Your task to perform on an android device: uninstall "Microsoft Excel" Image 0: 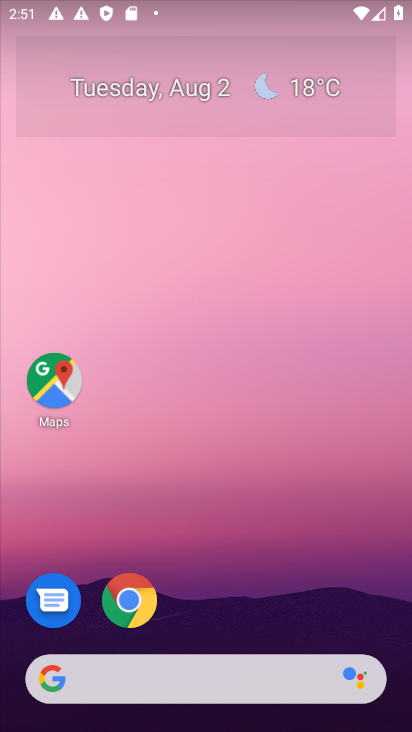
Step 0: drag from (144, 712) to (214, 105)
Your task to perform on an android device: uninstall "Microsoft Excel" Image 1: 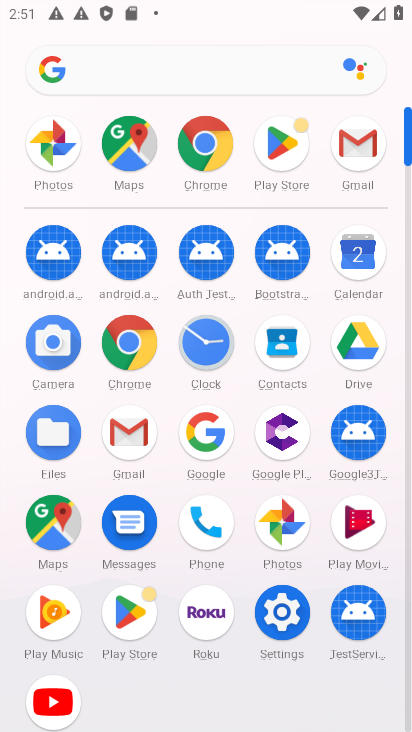
Step 1: click (286, 141)
Your task to perform on an android device: uninstall "Microsoft Excel" Image 2: 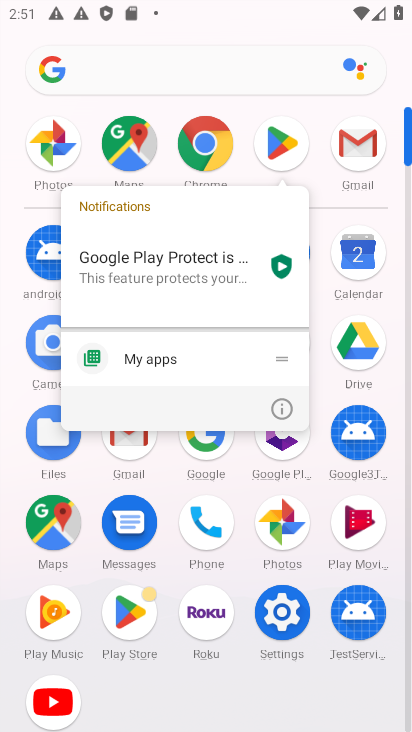
Step 2: click (286, 141)
Your task to perform on an android device: uninstall "Microsoft Excel" Image 3: 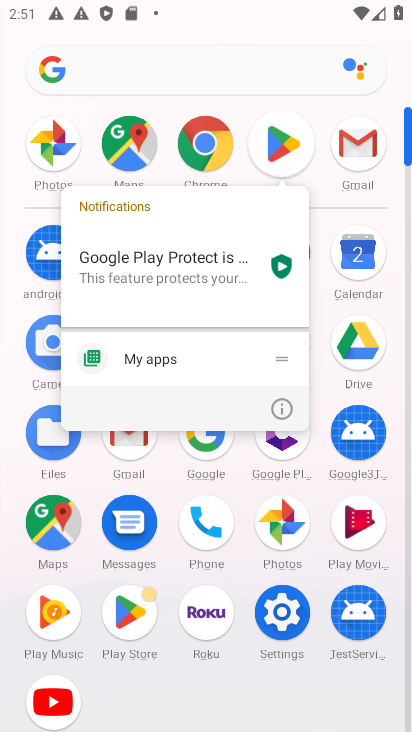
Step 3: click (286, 141)
Your task to perform on an android device: uninstall "Microsoft Excel" Image 4: 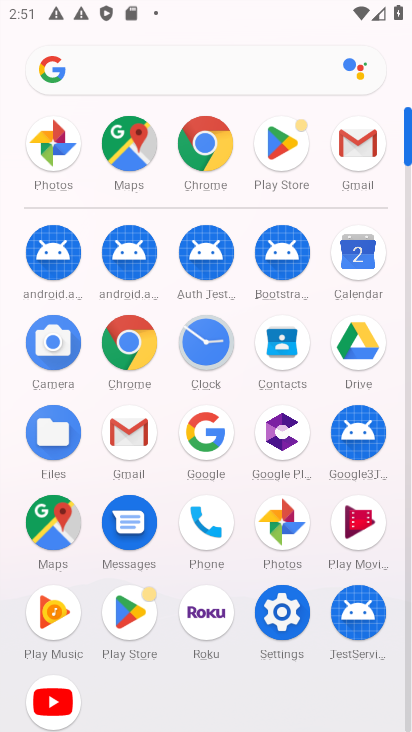
Step 4: click (286, 141)
Your task to perform on an android device: uninstall "Microsoft Excel" Image 5: 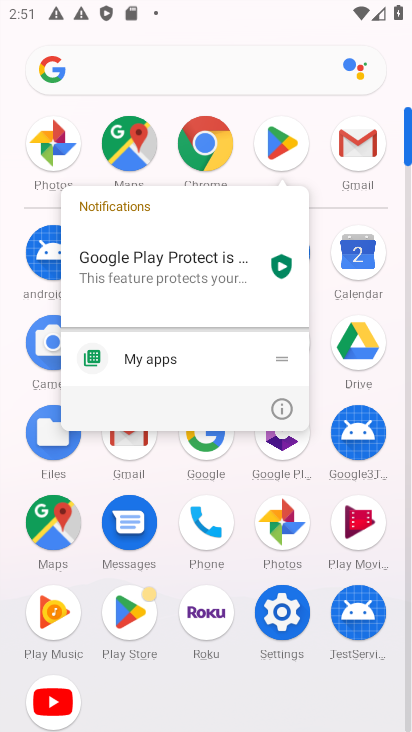
Step 5: click (286, 163)
Your task to perform on an android device: uninstall "Microsoft Excel" Image 6: 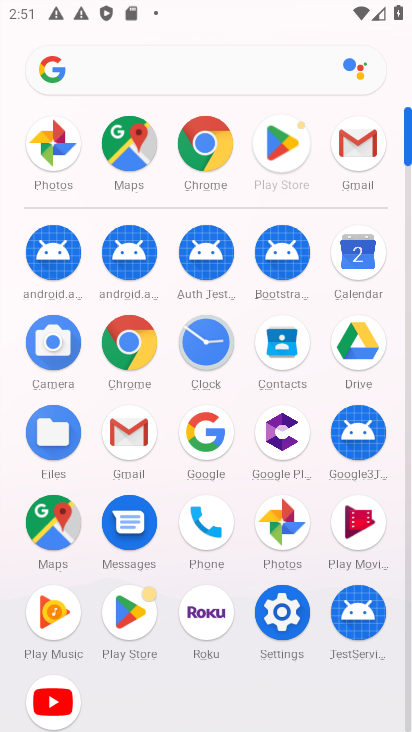
Step 6: click (286, 163)
Your task to perform on an android device: uninstall "Microsoft Excel" Image 7: 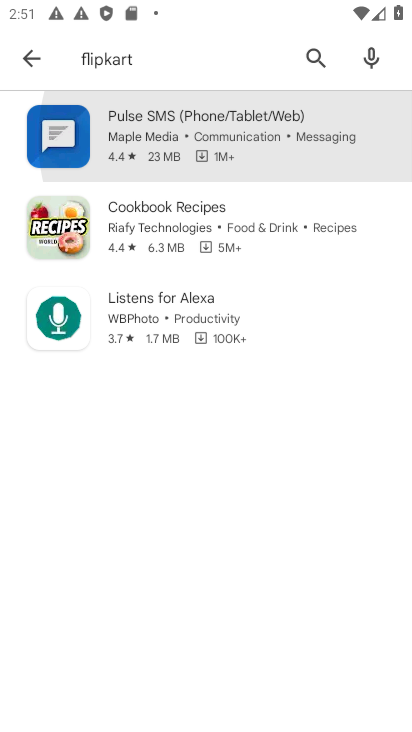
Step 7: click (292, 136)
Your task to perform on an android device: uninstall "Microsoft Excel" Image 8: 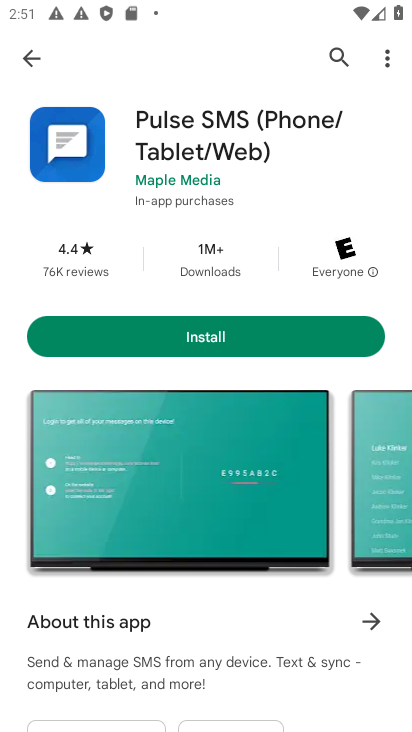
Step 8: click (341, 51)
Your task to perform on an android device: uninstall "Microsoft Excel" Image 9: 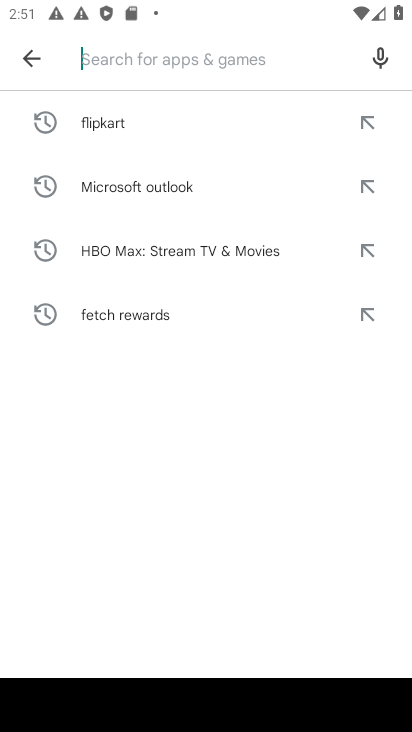
Step 9: click (240, 59)
Your task to perform on an android device: uninstall "Microsoft Excel" Image 10: 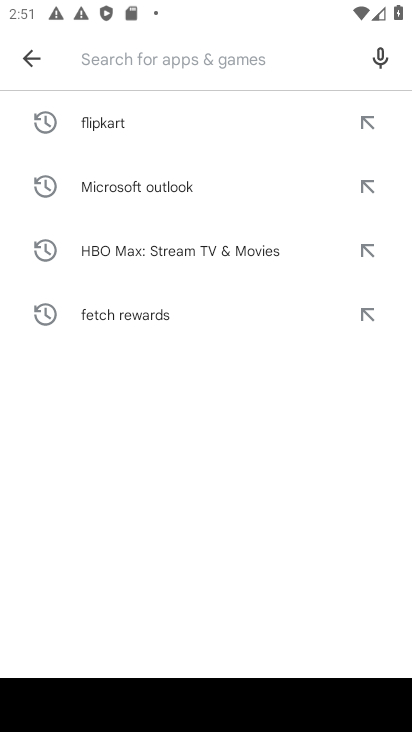
Step 10: click (235, 64)
Your task to perform on an android device: uninstall "Microsoft Excel" Image 11: 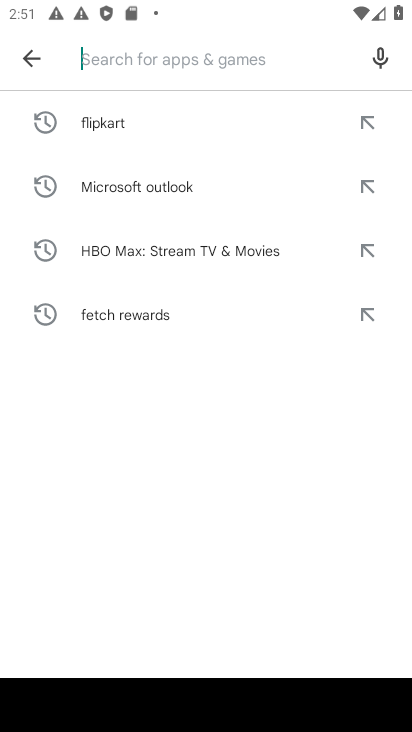
Step 11: click (273, 44)
Your task to perform on an android device: uninstall "Microsoft Excel" Image 12: 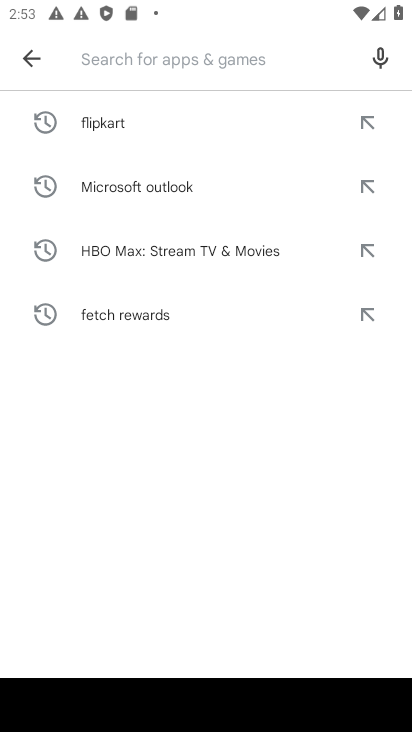
Step 12: type "microsoft excel"
Your task to perform on an android device: uninstall "Microsoft Excel" Image 13: 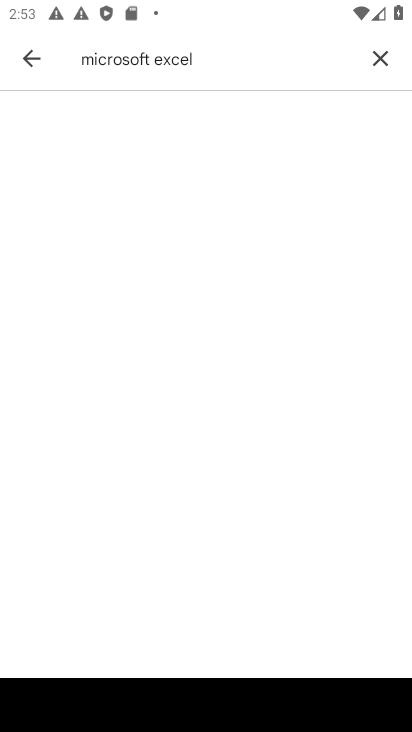
Step 13: press enter
Your task to perform on an android device: uninstall "Microsoft Excel" Image 14: 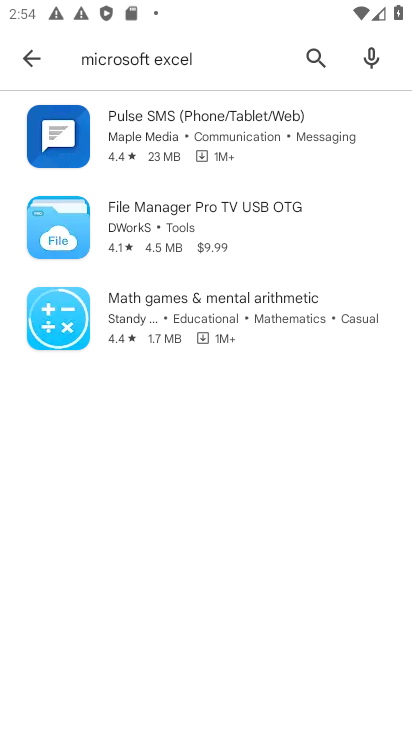
Step 14: task complete